Your task to perform on an android device: Open network settings Image 0: 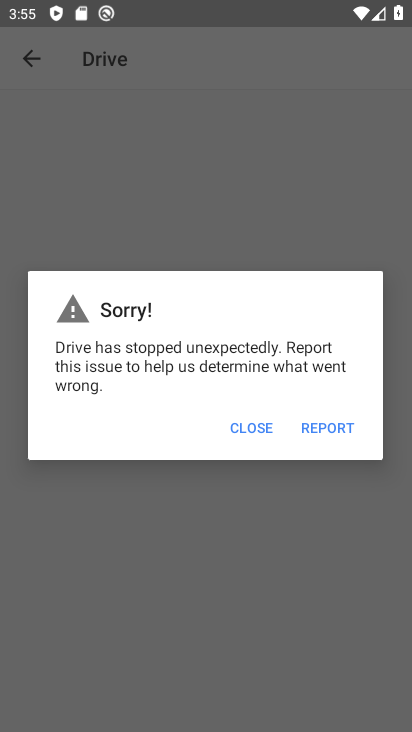
Step 0: press home button
Your task to perform on an android device: Open network settings Image 1: 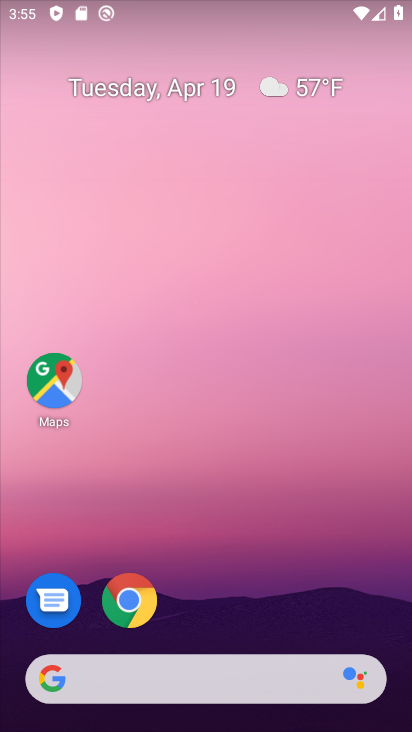
Step 1: drag from (304, 615) to (244, 142)
Your task to perform on an android device: Open network settings Image 2: 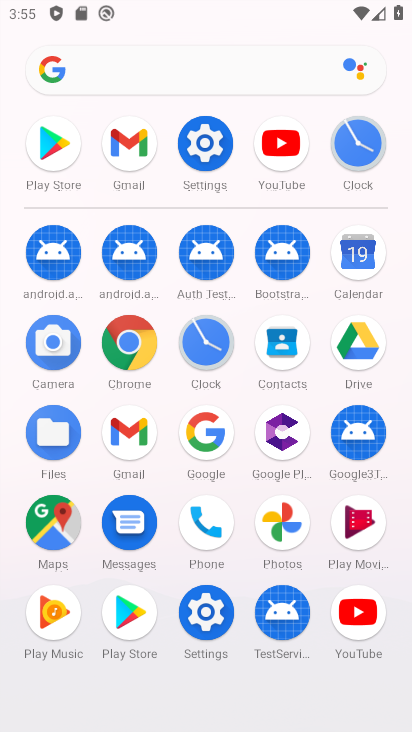
Step 2: click (207, 168)
Your task to perform on an android device: Open network settings Image 3: 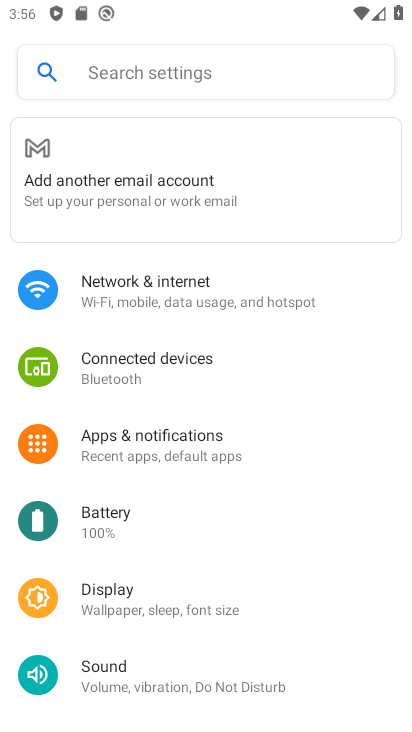
Step 3: click (221, 305)
Your task to perform on an android device: Open network settings Image 4: 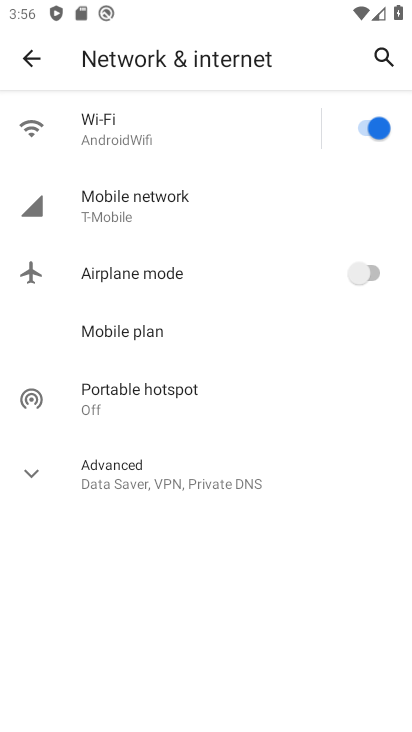
Step 4: click (198, 212)
Your task to perform on an android device: Open network settings Image 5: 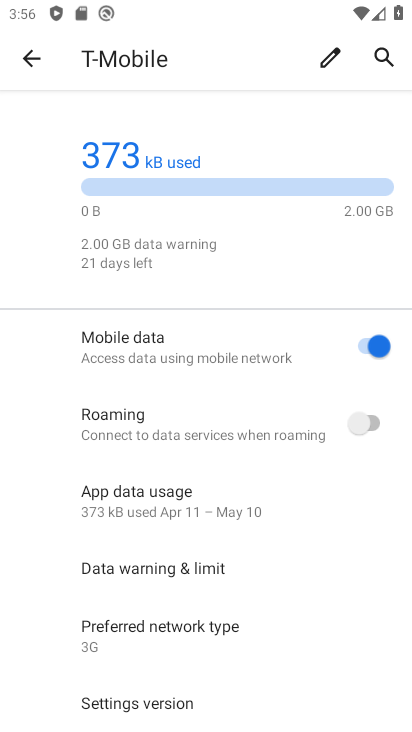
Step 5: task complete